Your task to perform on an android device: empty trash in google photos Image 0: 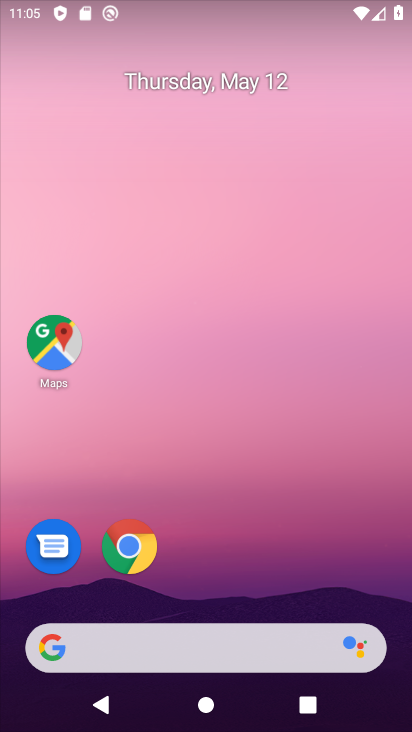
Step 0: drag from (228, 726) to (231, 125)
Your task to perform on an android device: empty trash in google photos Image 1: 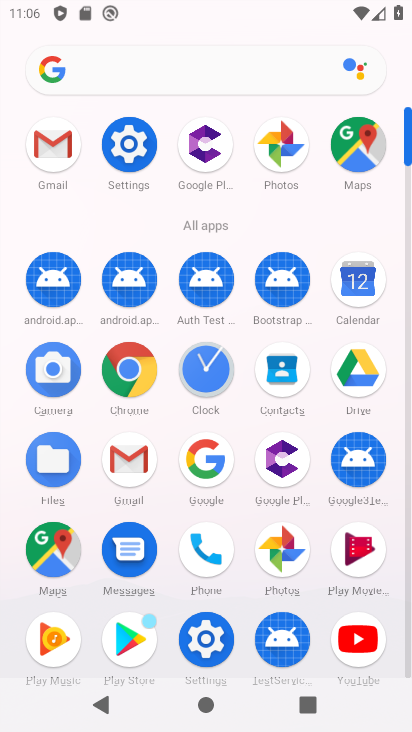
Step 1: click (282, 550)
Your task to perform on an android device: empty trash in google photos Image 2: 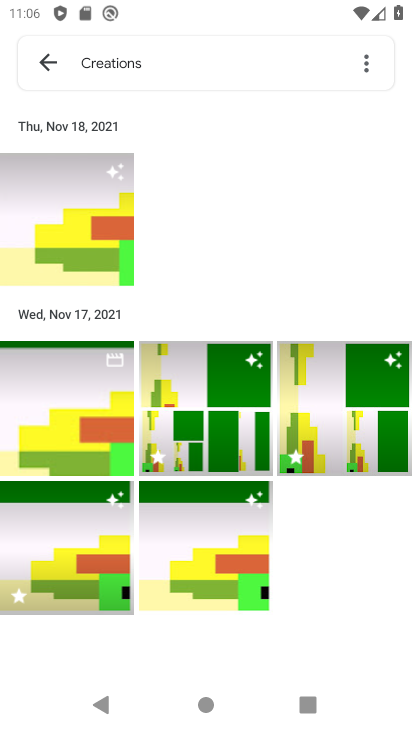
Step 2: click (49, 57)
Your task to perform on an android device: empty trash in google photos Image 3: 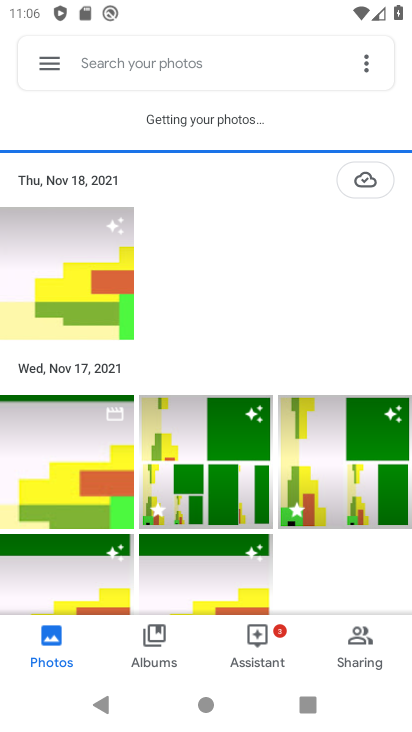
Step 3: click (52, 64)
Your task to perform on an android device: empty trash in google photos Image 4: 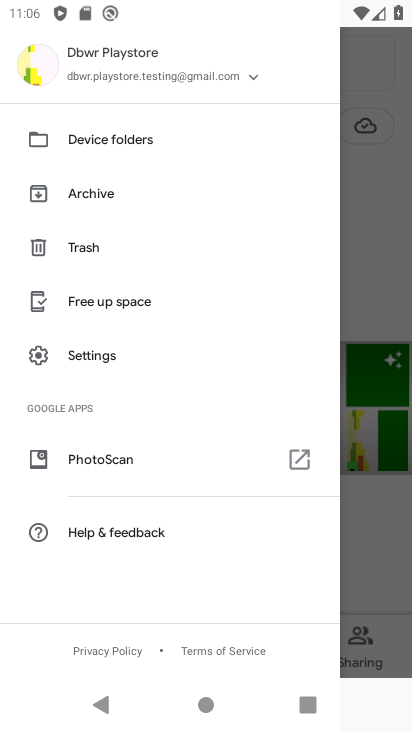
Step 4: click (86, 246)
Your task to perform on an android device: empty trash in google photos Image 5: 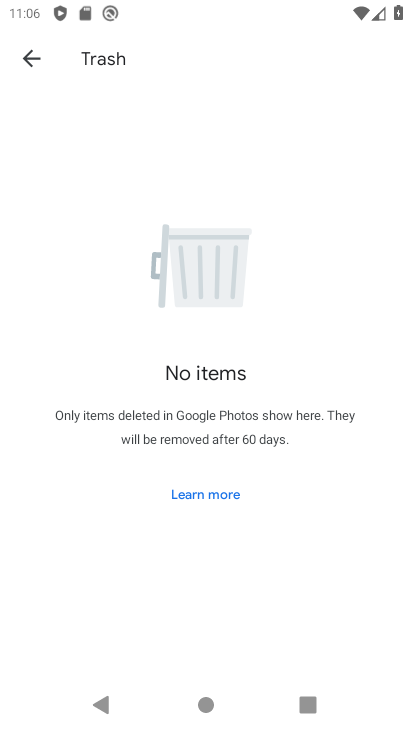
Step 5: task complete